Your task to perform on an android device: turn off airplane mode Image 0: 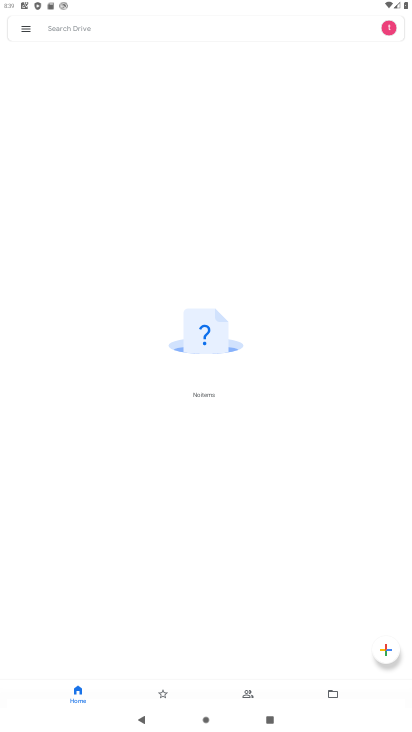
Step 0: task complete